Your task to perform on an android device: refresh tabs in the chrome app Image 0: 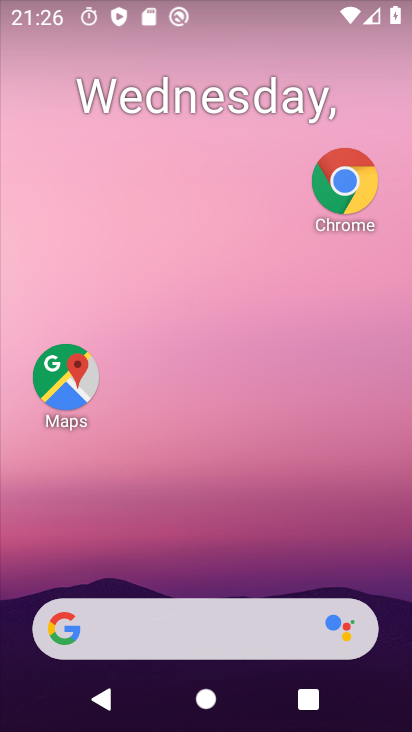
Step 0: drag from (229, 663) to (299, 254)
Your task to perform on an android device: refresh tabs in the chrome app Image 1: 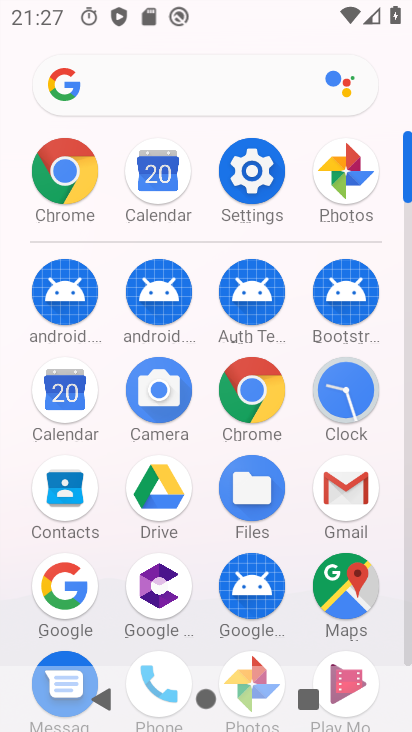
Step 1: click (76, 183)
Your task to perform on an android device: refresh tabs in the chrome app Image 2: 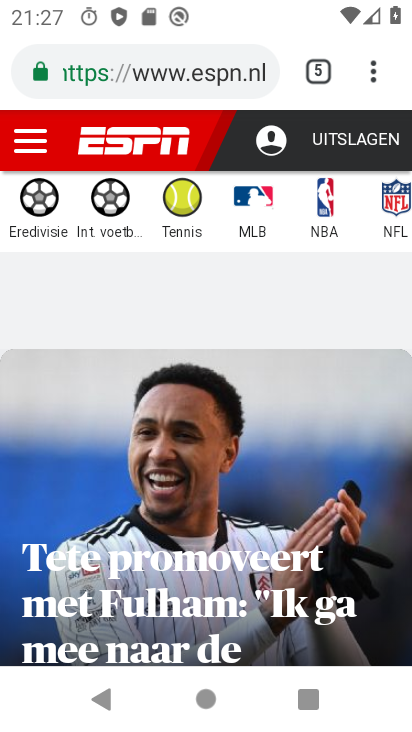
Step 2: click (372, 76)
Your task to perform on an android device: refresh tabs in the chrome app Image 3: 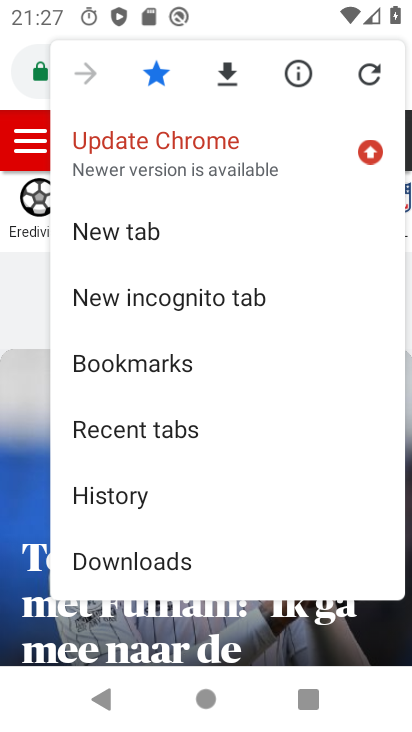
Step 3: click (365, 82)
Your task to perform on an android device: refresh tabs in the chrome app Image 4: 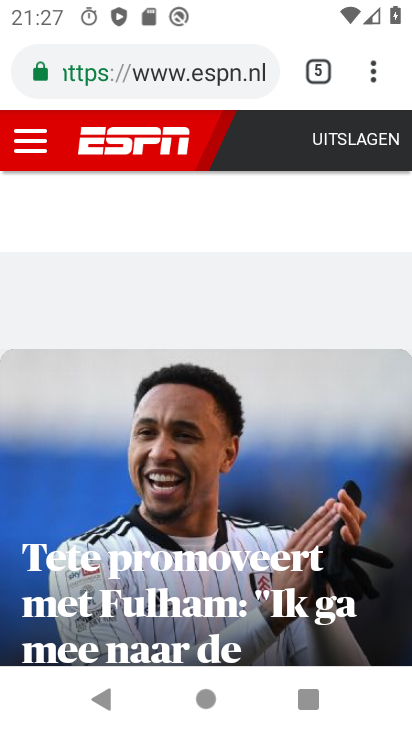
Step 4: task complete